Your task to perform on an android device: open app "Upside-Cash back on gas & food" (install if not already installed) Image 0: 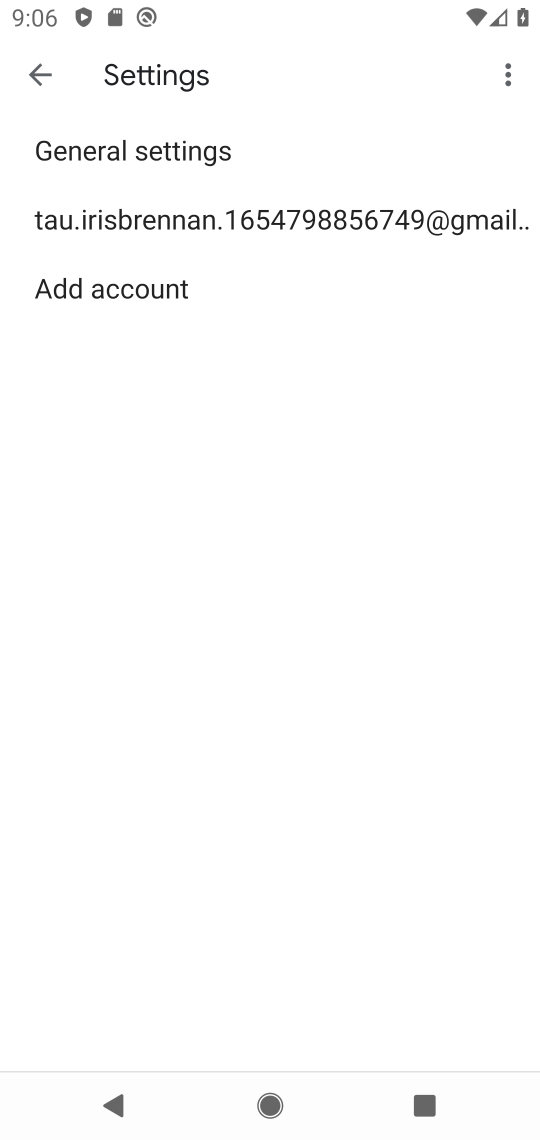
Step 0: press home button
Your task to perform on an android device: open app "Upside-Cash back on gas & food" (install if not already installed) Image 1: 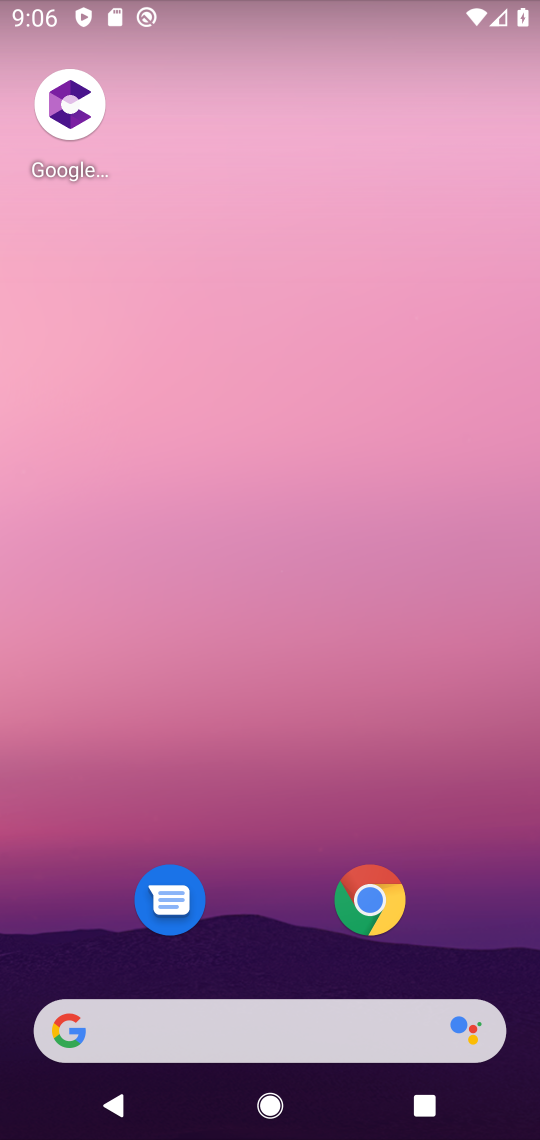
Step 1: drag from (289, 259) to (289, 155)
Your task to perform on an android device: open app "Upside-Cash back on gas & food" (install if not already installed) Image 2: 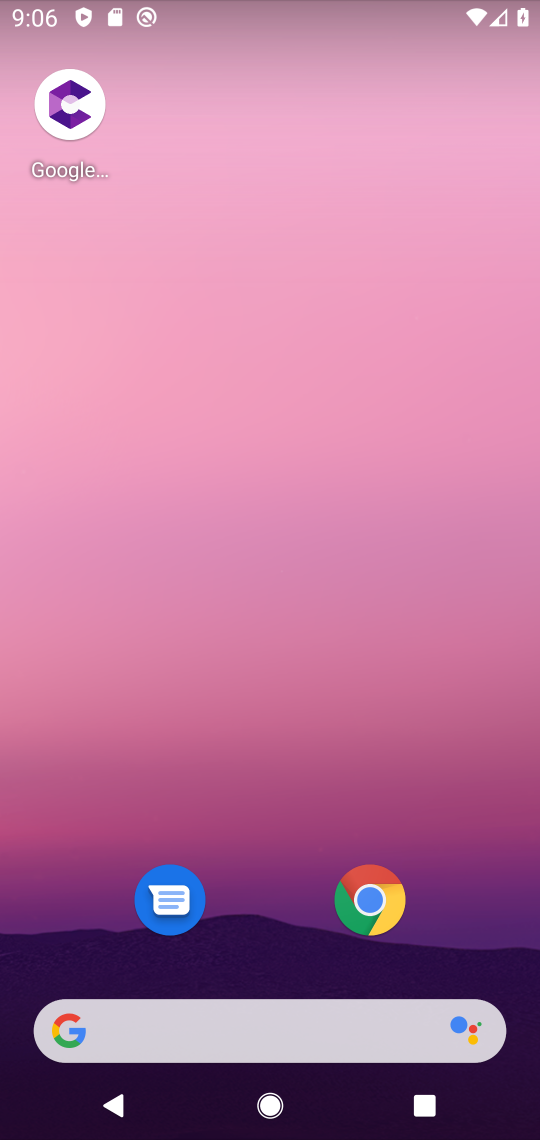
Step 2: drag from (288, 809) to (297, 218)
Your task to perform on an android device: open app "Upside-Cash back on gas & food" (install if not already installed) Image 3: 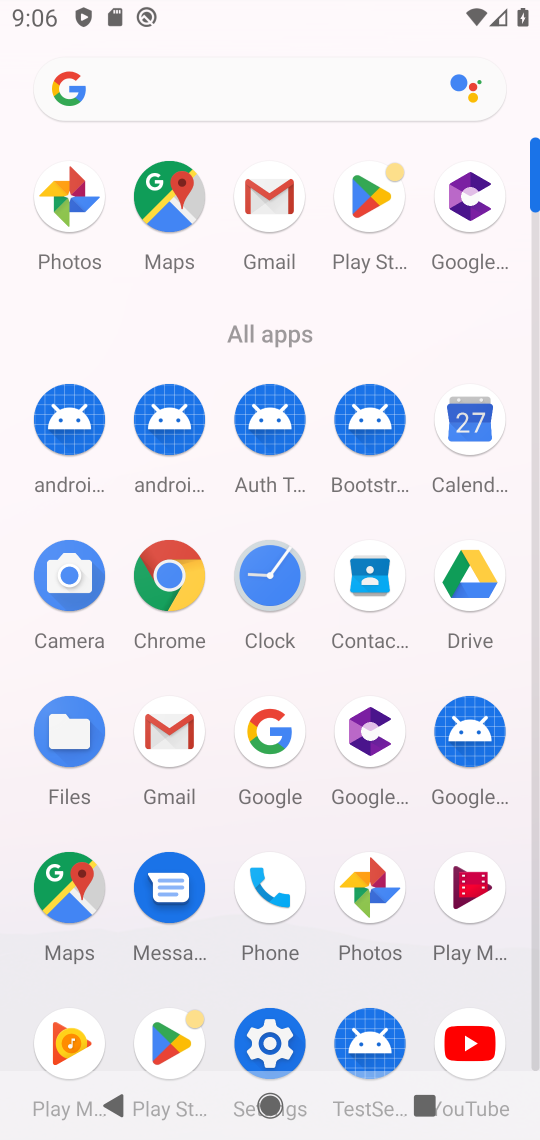
Step 3: click (181, 1034)
Your task to perform on an android device: open app "Upside-Cash back on gas & food" (install if not already installed) Image 4: 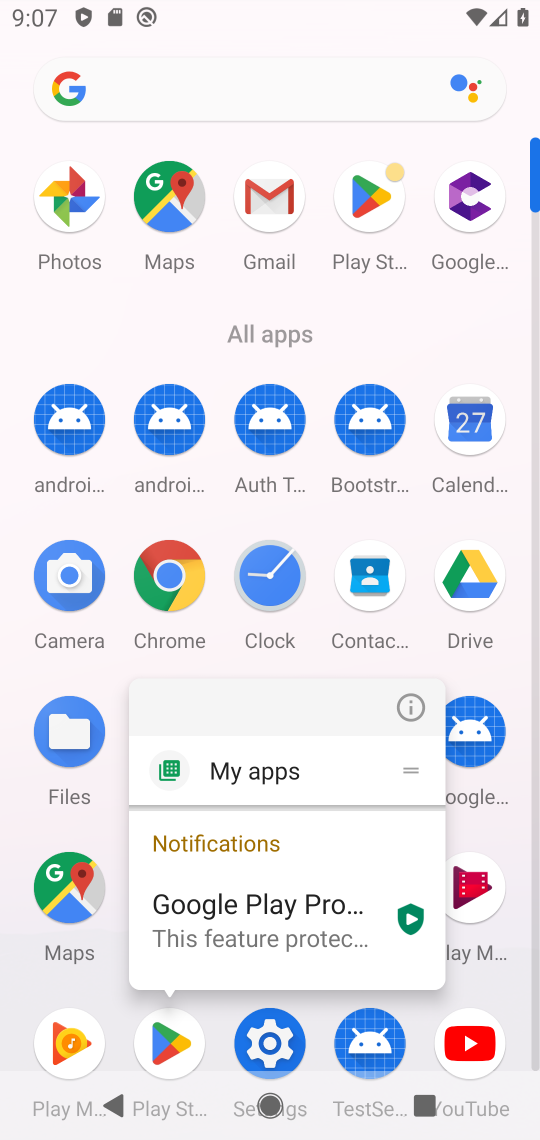
Step 4: click (174, 1048)
Your task to perform on an android device: open app "Upside-Cash back on gas & food" (install if not already installed) Image 5: 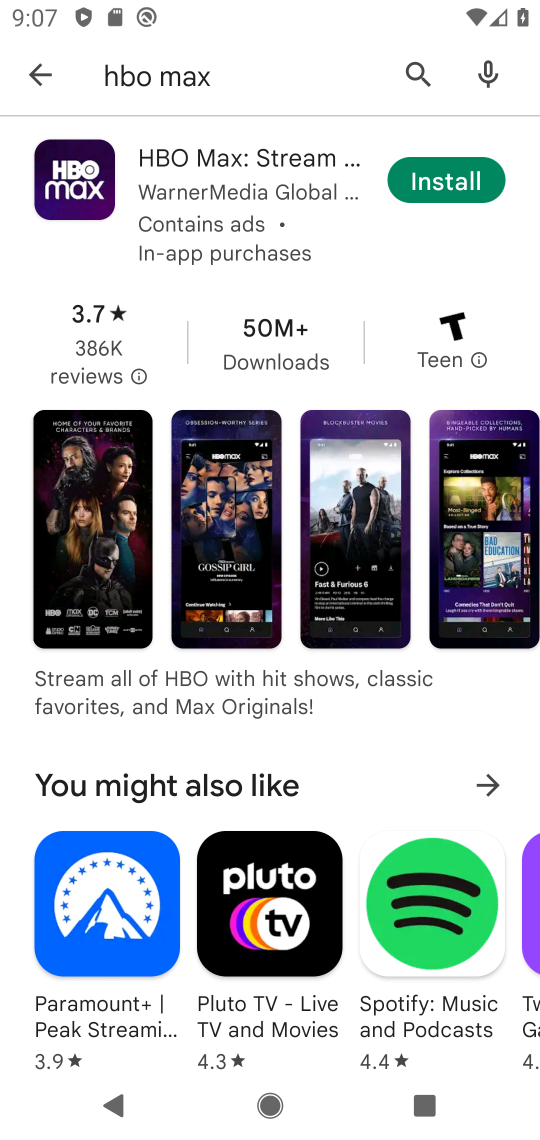
Step 5: click (419, 74)
Your task to perform on an android device: open app "Upside-Cash back on gas & food" (install if not already installed) Image 6: 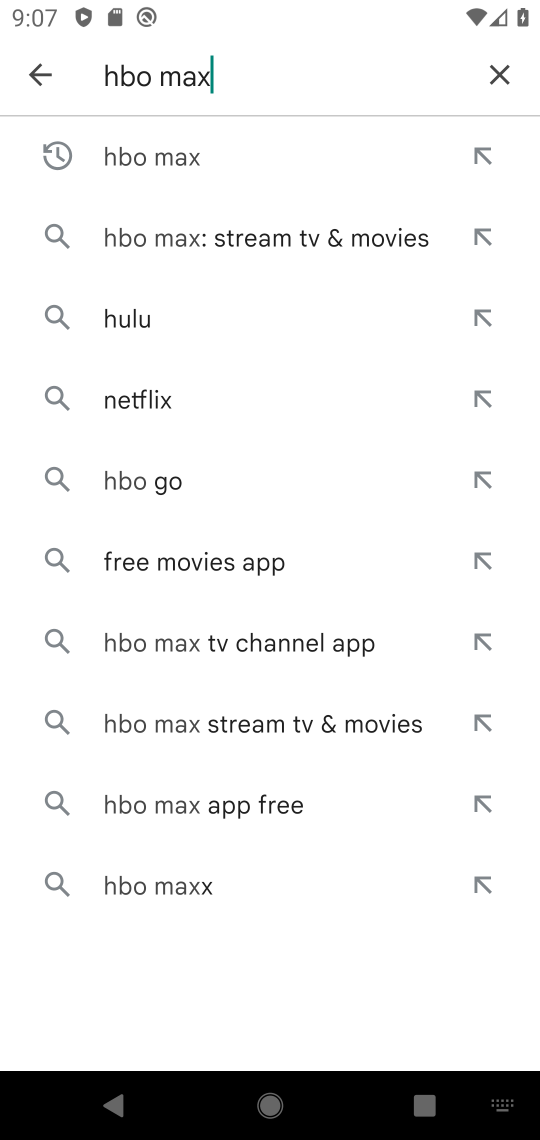
Step 6: click (506, 75)
Your task to perform on an android device: open app "Upside-Cash back on gas & food" (install if not already installed) Image 7: 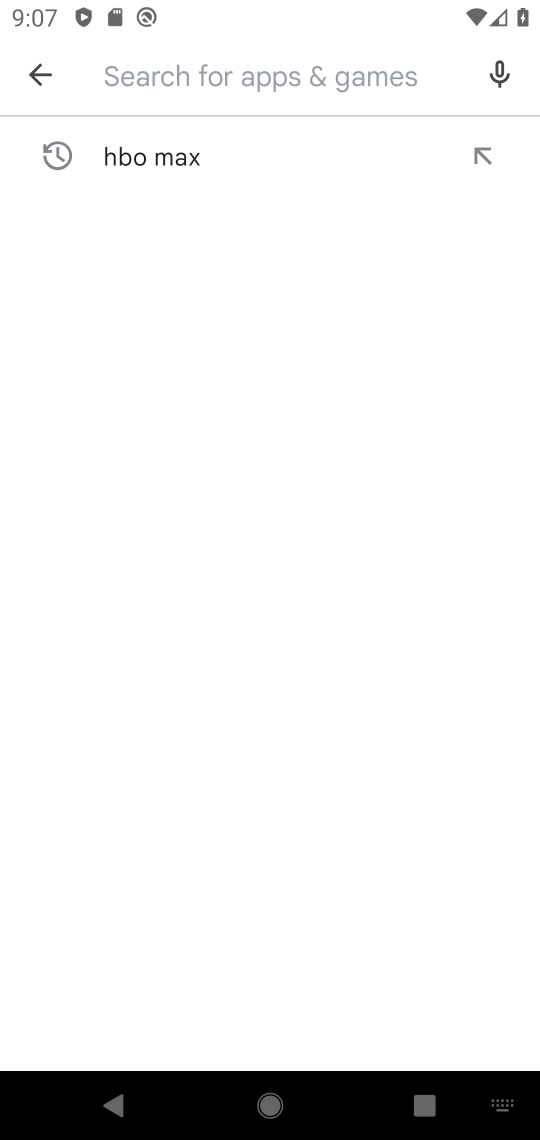
Step 7: type "Upside-Cash back on gas & food"
Your task to perform on an android device: open app "Upside-Cash back on gas & food" (install if not already installed) Image 8: 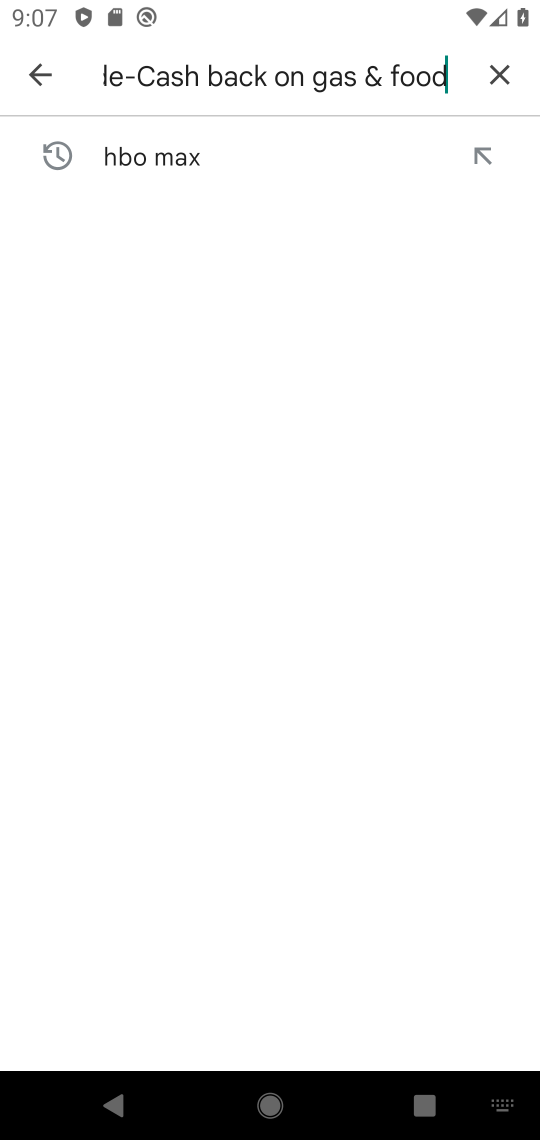
Step 8: type ""
Your task to perform on an android device: open app "Upside-Cash back on gas & food" (install if not already installed) Image 9: 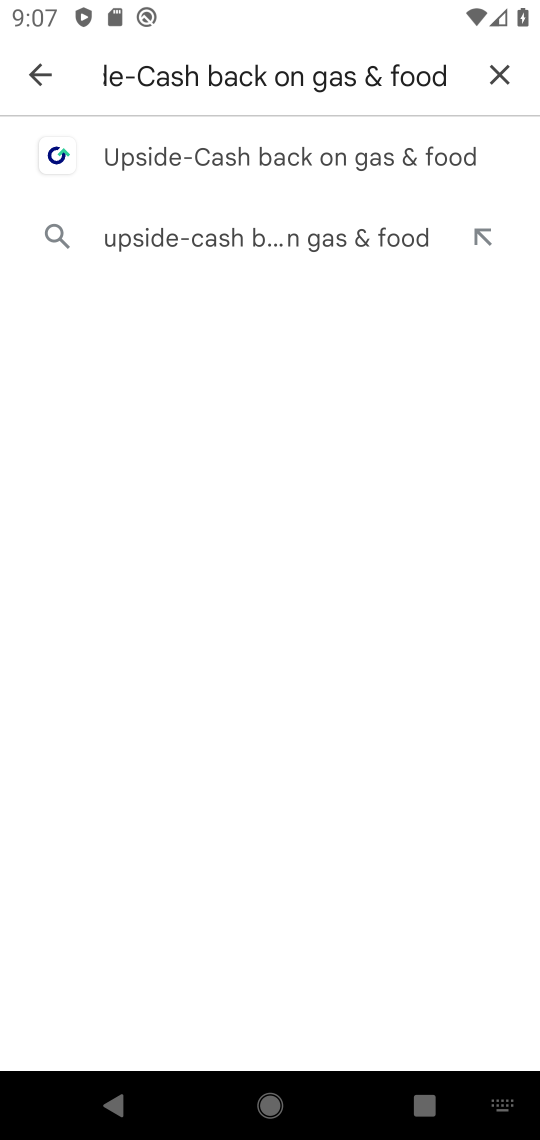
Step 9: click (370, 157)
Your task to perform on an android device: open app "Upside-Cash back on gas & food" (install if not already installed) Image 10: 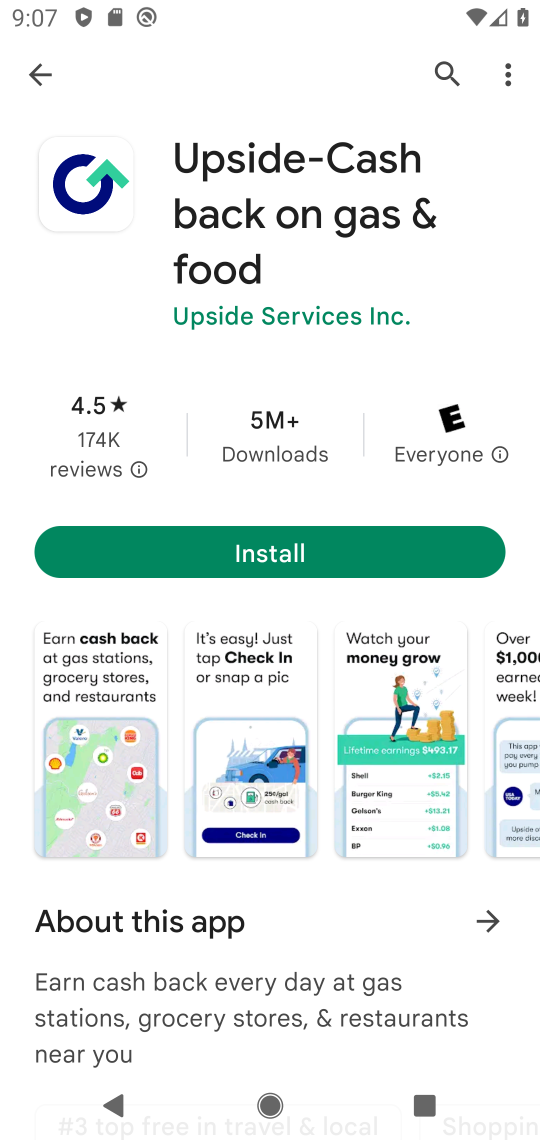
Step 10: click (380, 540)
Your task to perform on an android device: open app "Upside-Cash back on gas & food" (install if not already installed) Image 11: 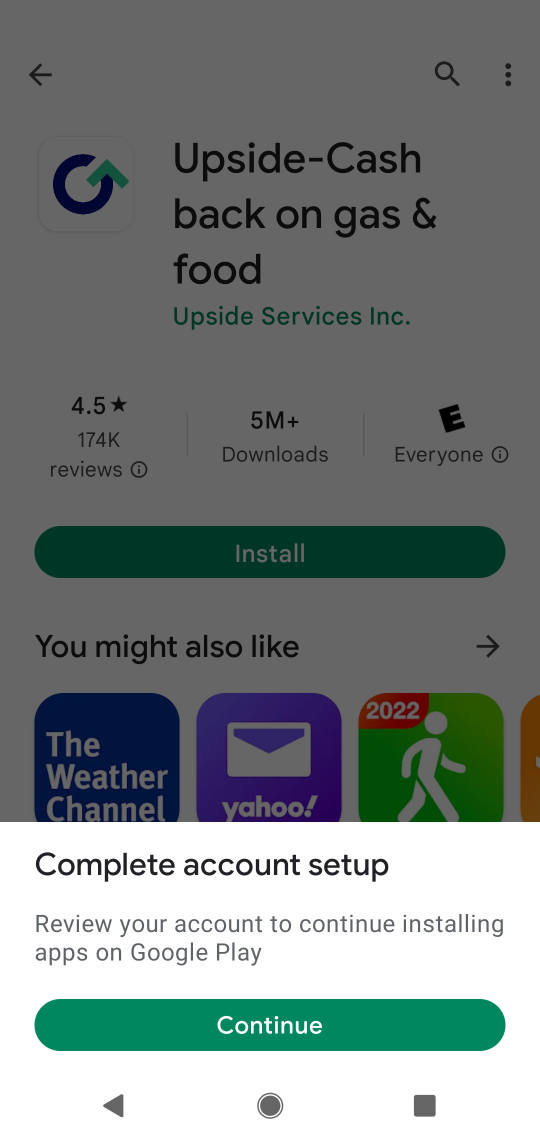
Step 11: press home button
Your task to perform on an android device: open app "Upside-Cash back on gas & food" (install if not already installed) Image 12: 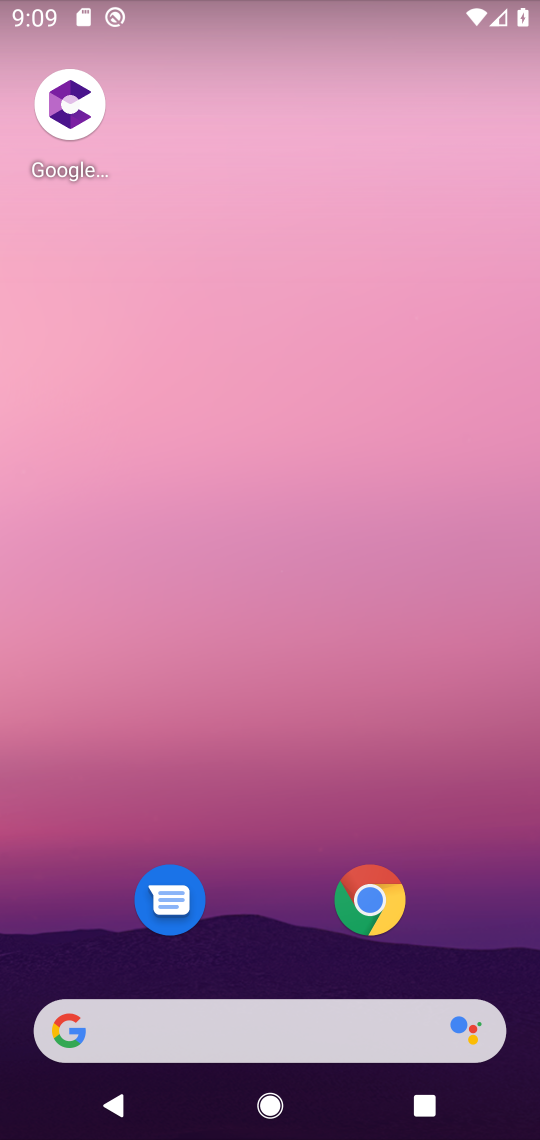
Step 12: click (410, 1091)
Your task to perform on an android device: open app "Upside-Cash back on gas & food" (install if not already installed) Image 13: 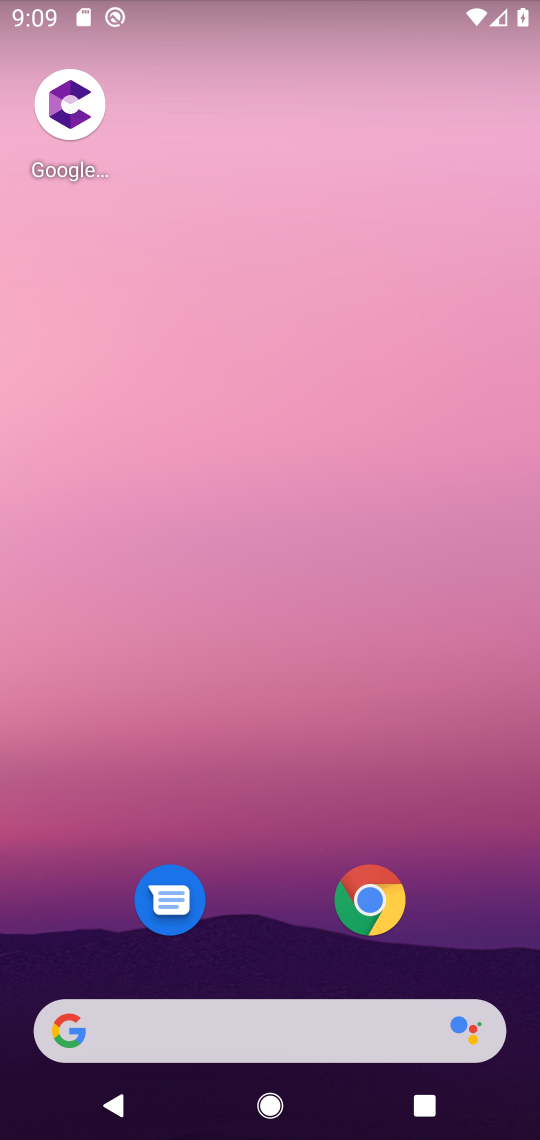
Step 13: click (435, 1112)
Your task to perform on an android device: open app "Upside-Cash back on gas & food" (install if not already installed) Image 14: 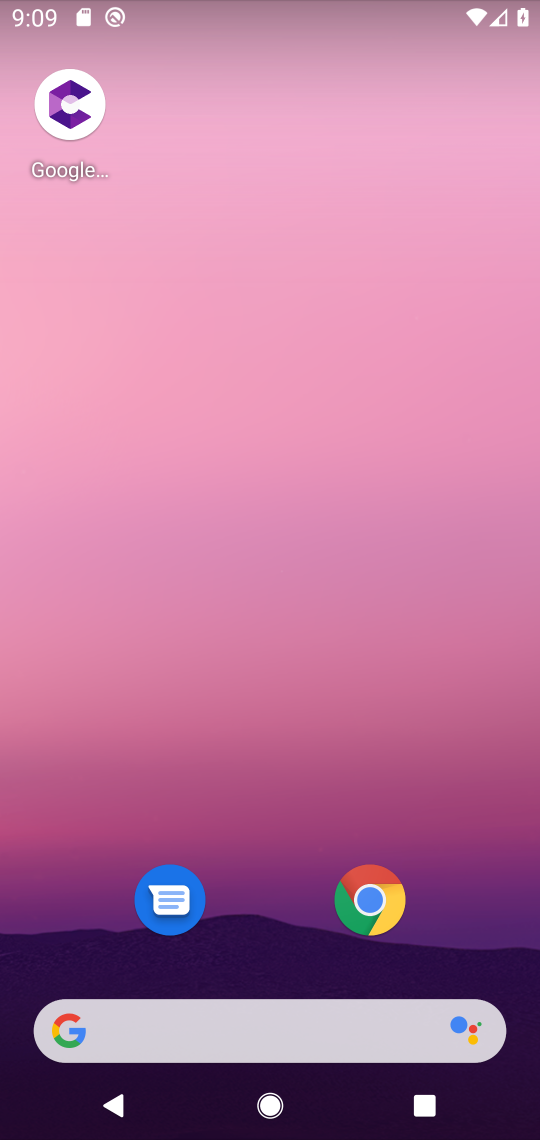
Step 14: drag from (278, 809) to (419, 111)
Your task to perform on an android device: open app "Upside-Cash back on gas & food" (install if not already installed) Image 15: 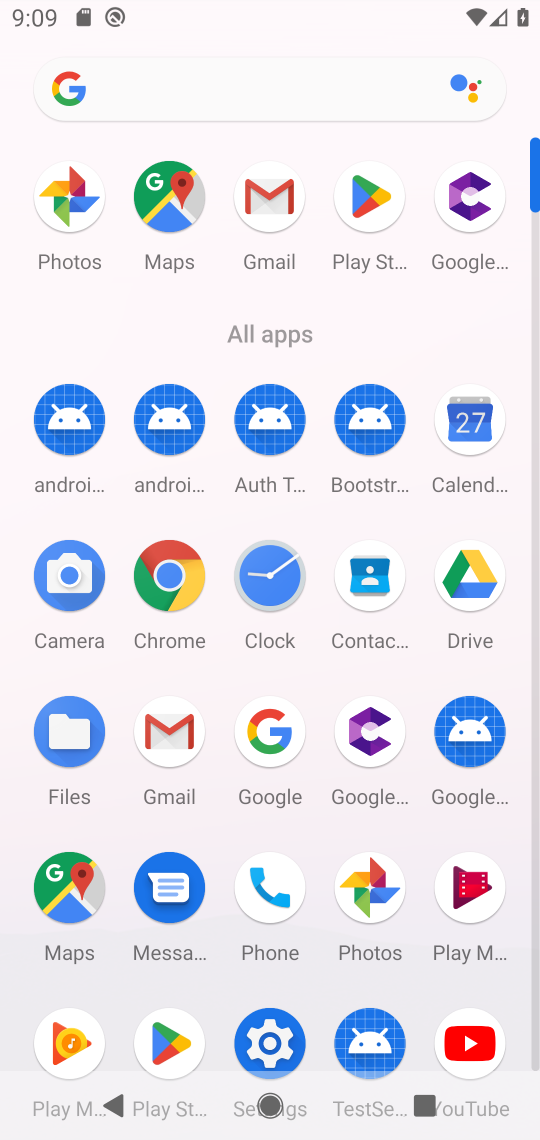
Step 15: click (364, 239)
Your task to perform on an android device: open app "Upside-Cash back on gas & food" (install if not already installed) Image 16: 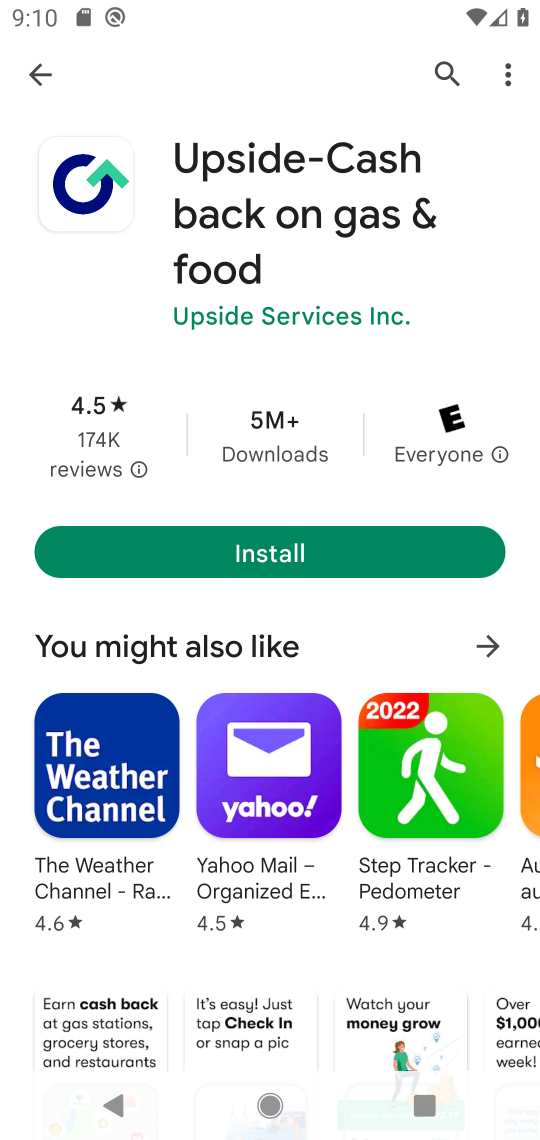
Step 16: click (269, 529)
Your task to perform on an android device: open app "Upside-Cash back on gas & food" (install if not already installed) Image 17: 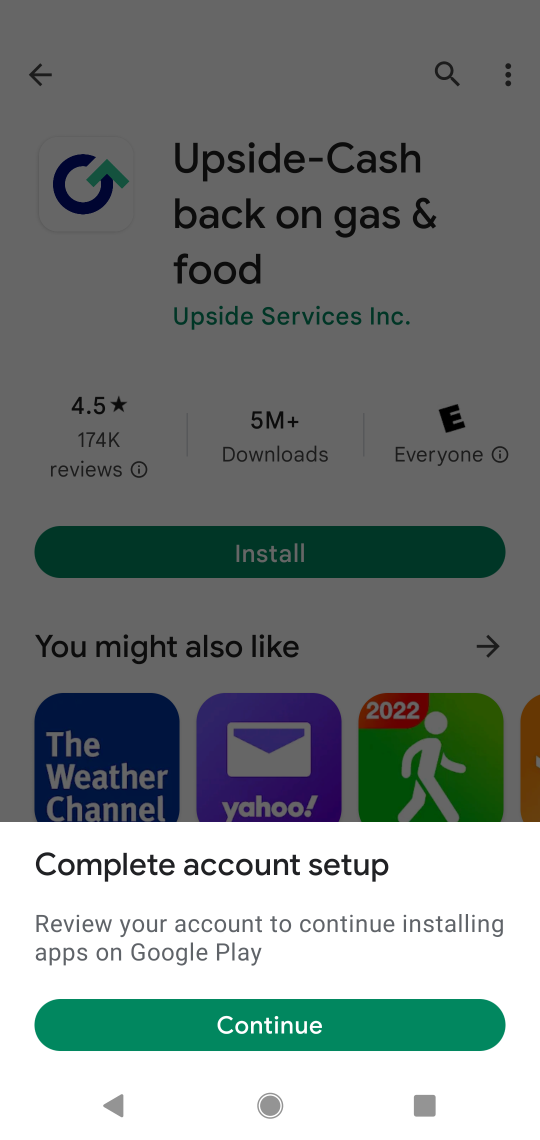
Step 17: click (340, 1029)
Your task to perform on an android device: open app "Upside-Cash back on gas & food" (install if not already installed) Image 18: 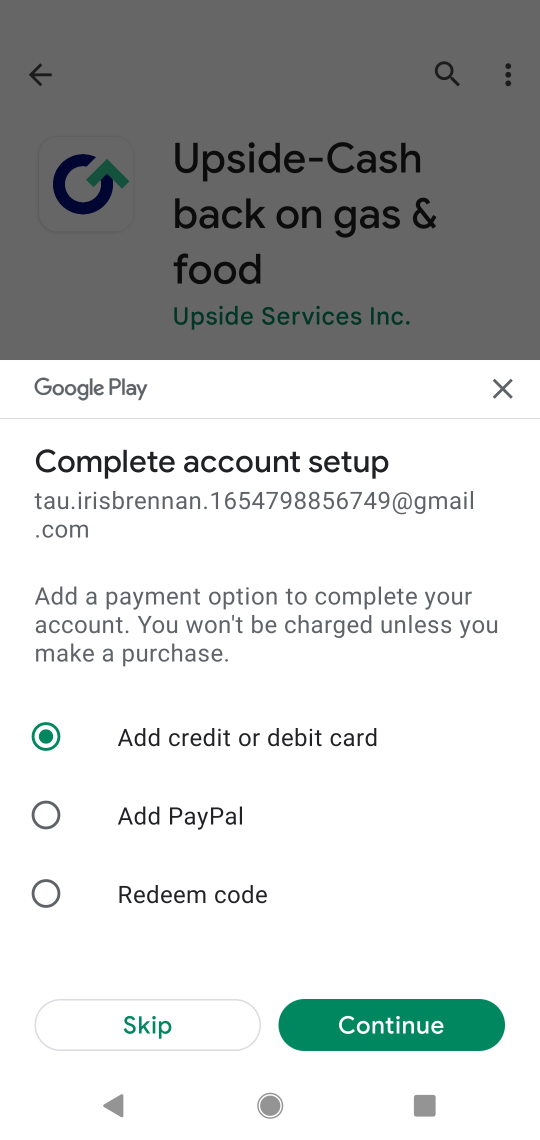
Step 18: click (79, 1034)
Your task to perform on an android device: open app "Upside-Cash back on gas & food" (install if not already installed) Image 19: 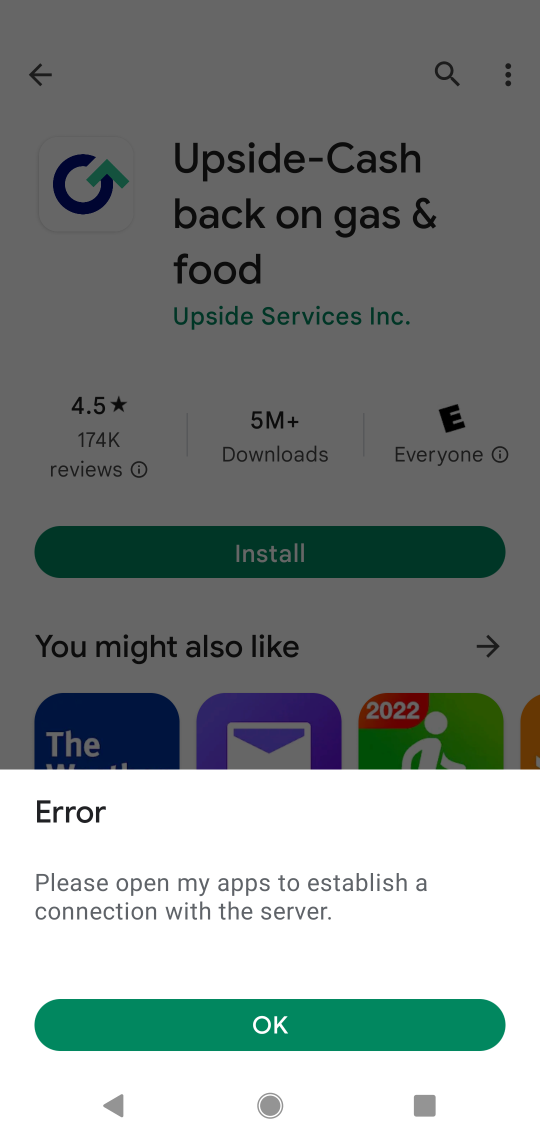
Step 19: click (79, 1034)
Your task to perform on an android device: open app "Upside-Cash back on gas & food" (install if not already installed) Image 20: 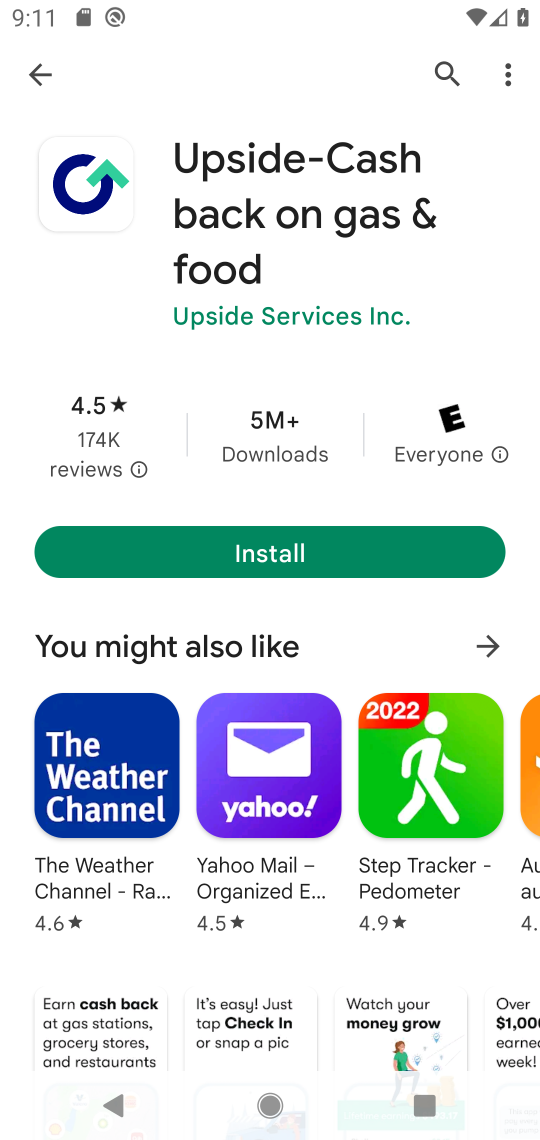
Step 20: task complete